Your task to perform on an android device: open a bookmark in the chrome app Image 0: 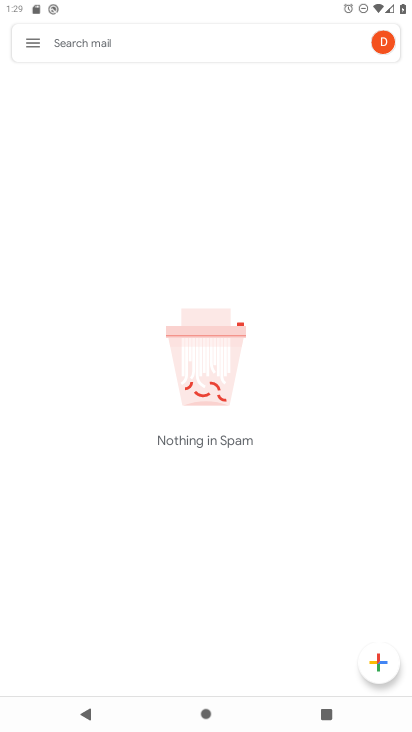
Step 0: press home button
Your task to perform on an android device: open a bookmark in the chrome app Image 1: 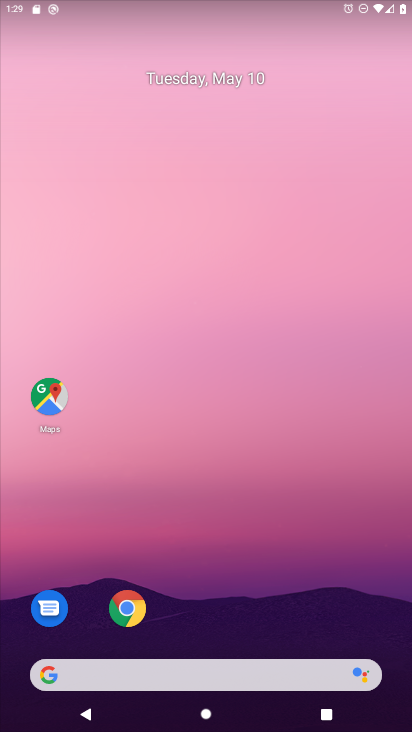
Step 1: drag from (349, 621) to (353, 138)
Your task to perform on an android device: open a bookmark in the chrome app Image 2: 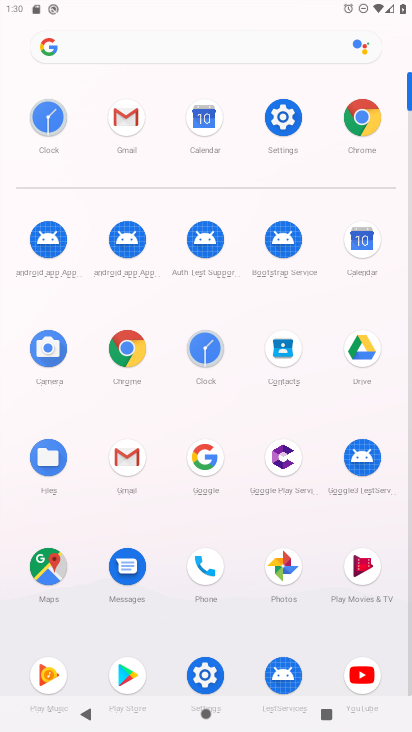
Step 2: click (127, 352)
Your task to perform on an android device: open a bookmark in the chrome app Image 3: 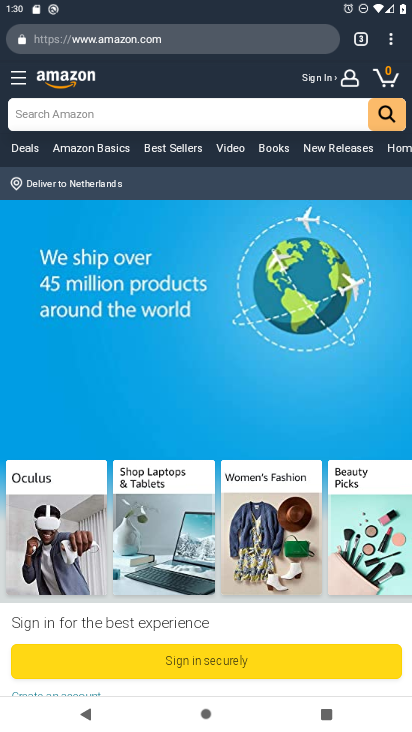
Step 3: drag from (390, 33) to (277, 152)
Your task to perform on an android device: open a bookmark in the chrome app Image 4: 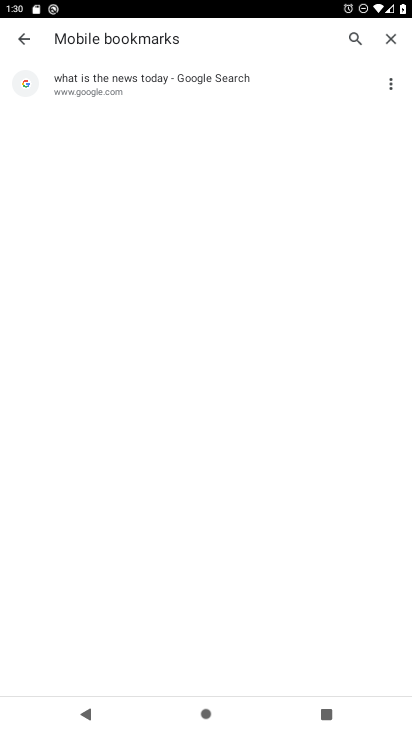
Step 4: click (136, 99)
Your task to perform on an android device: open a bookmark in the chrome app Image 5: 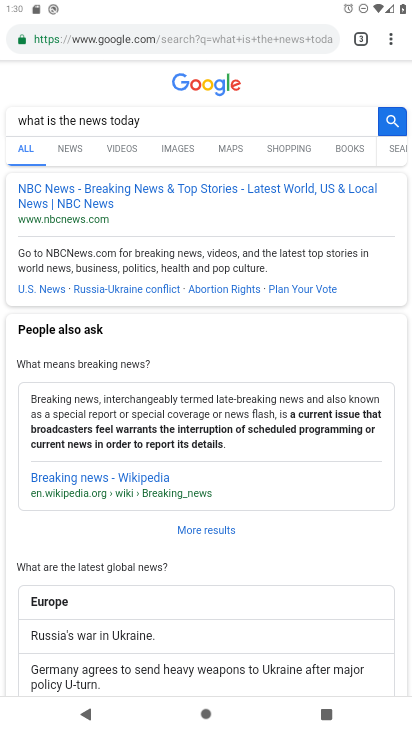
Step 5: task complete